Your task to perform on an android device: Go to privacy settings Image 0: 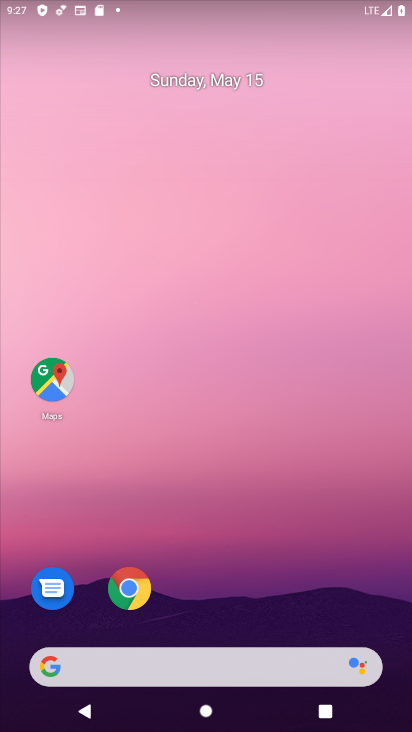
Step 0: drag from (260, 530) to (245, 61)
Your task to perform on an android device: Go to privacy settings Image 1: 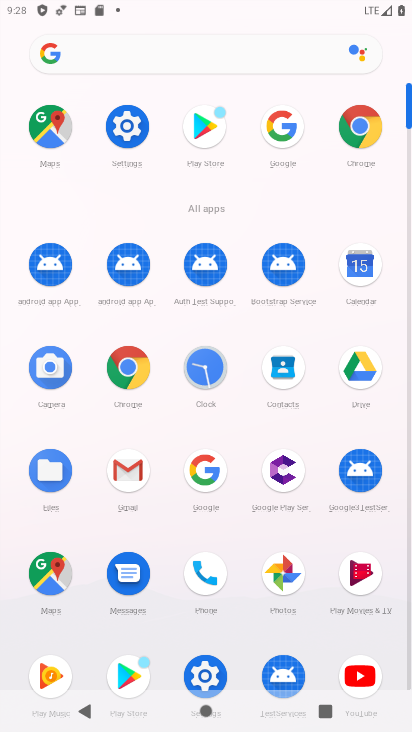
Step 1: click (121, 110)
Your task to perform on an android device: Go to privacy settings Image 2: 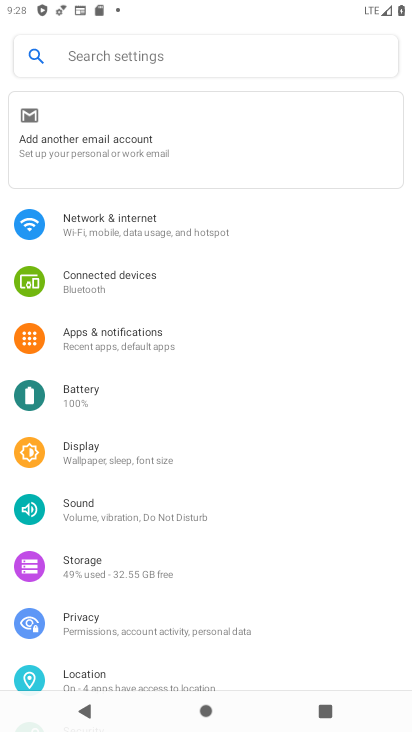
Step 2: click (121, 633)
Your task to perform on an android device: Go to privacy settings Image 3: 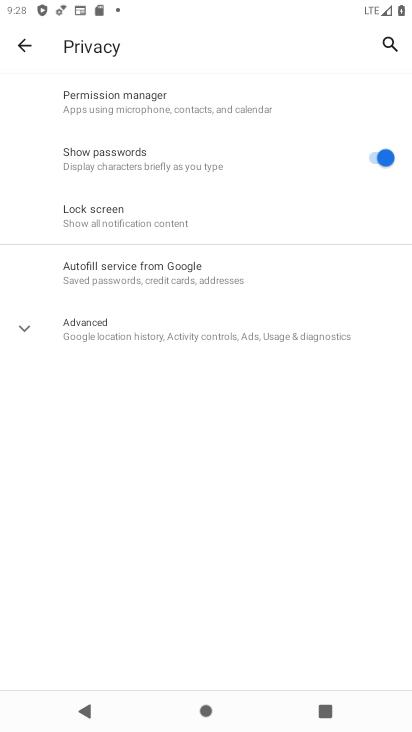
Step 3: click (259, 337)
Your task to perform on an android device: Go to privacy settings Image 4: 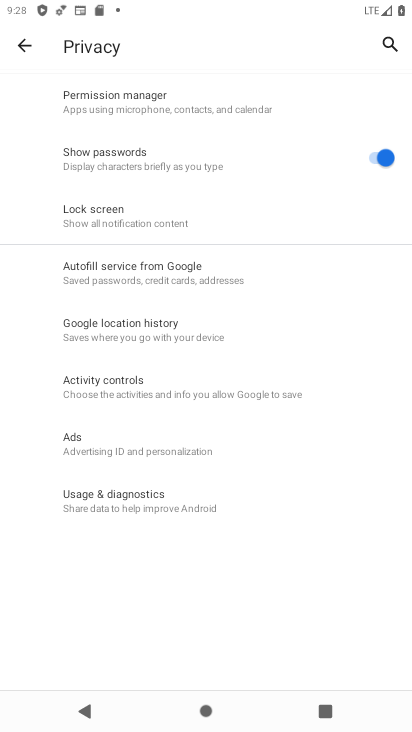
Step 4: task complete